Your task to perform on an android device: check data usage Image 0: 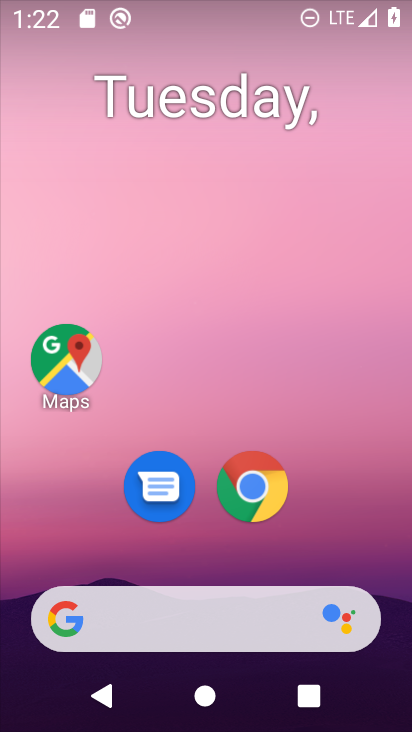
Step 0: drag from (17, 636) to (254, 225)
Your task to perform on an android device: check data usage Image 1: 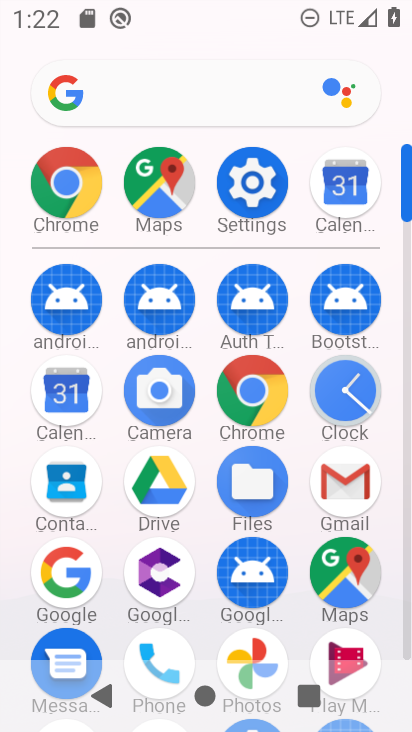
Step 1: click (254, 191)
Your task to perform on an android device: check data usage Image 2: 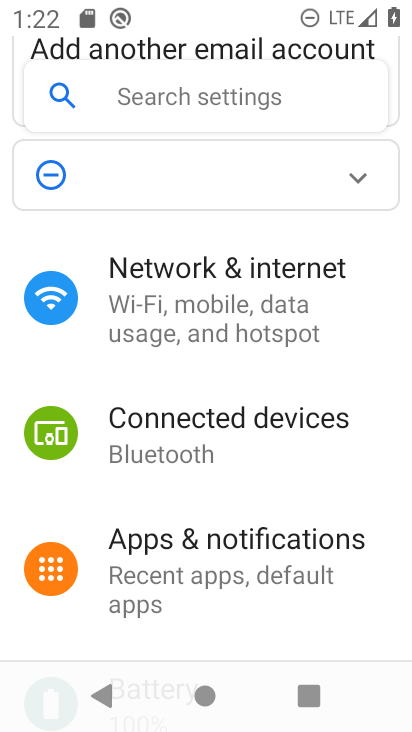
Step 2: click (226, 313)
Your task to perform on an android device: check data usage Image 3: 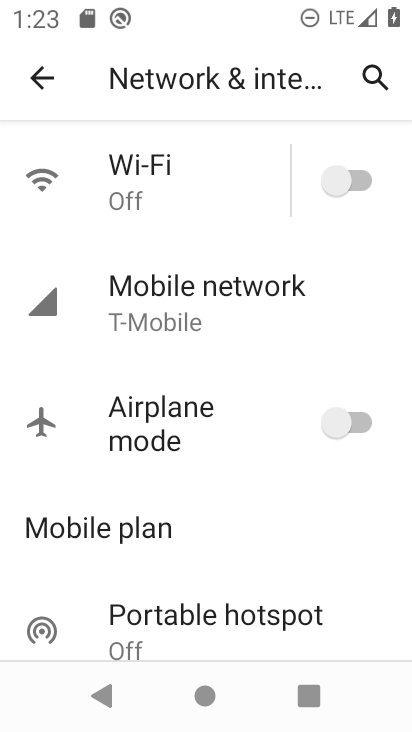
Step 3: click (274, 293)
Your task to perform on an android device: check data usage Image 4: 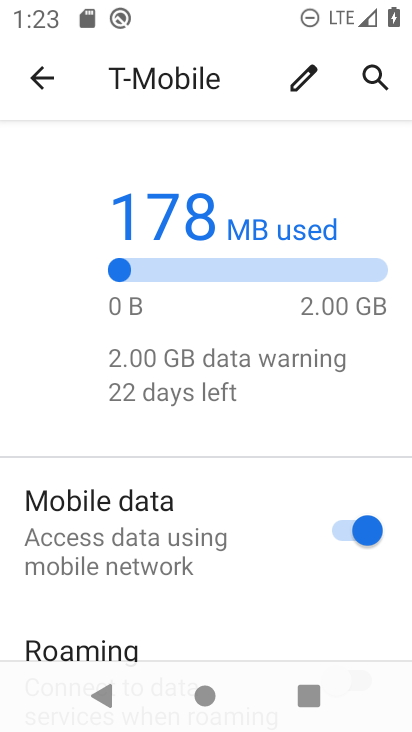
Step 4: click (260, 302)
Your task to perform on an android device: check data usage Image 5: 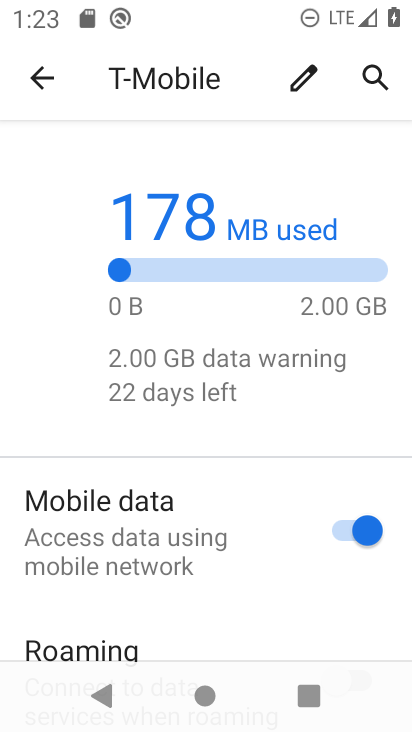
Step 5: task complete